Your task to perform on an android device: open chrome and create a bookmark for the current page Image 0: 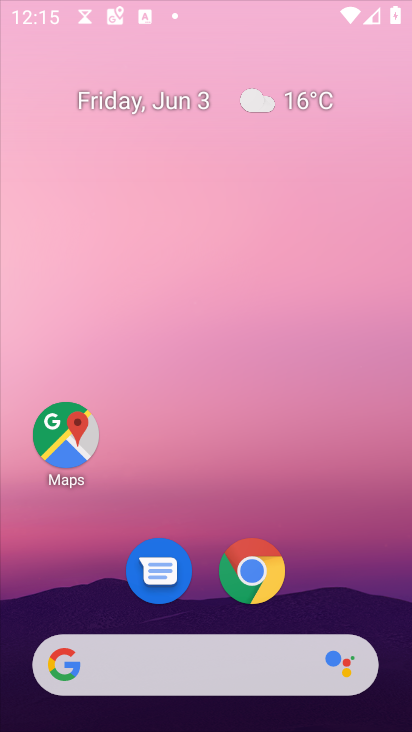
Step 0: drag from (381, 497) to (384, 18)
Your task to perform on an android device: open chrome and create a bookmark for the current page Image 1: 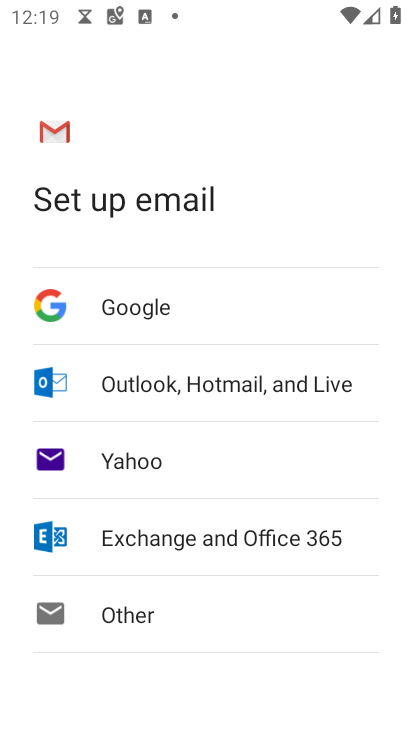
Step 1: press home button
Your task to perform on an android device: open chrome and create a bookmark for the current page Image 2: 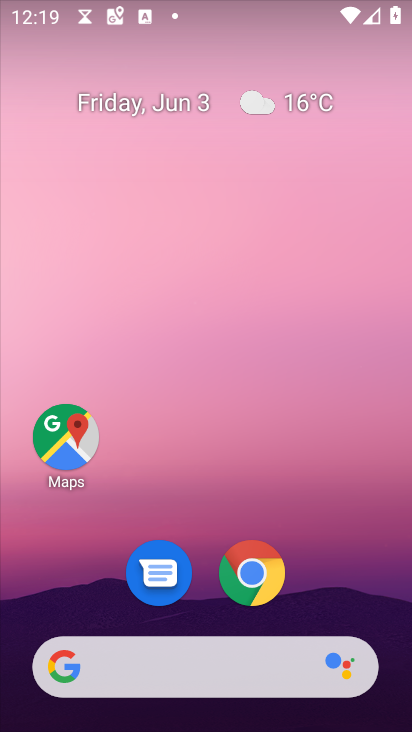
Step 2: drag from (326, 566) to (299, 83)
Your task to perform on an android device: open chrome and create a bookmark for the current page Image 3: 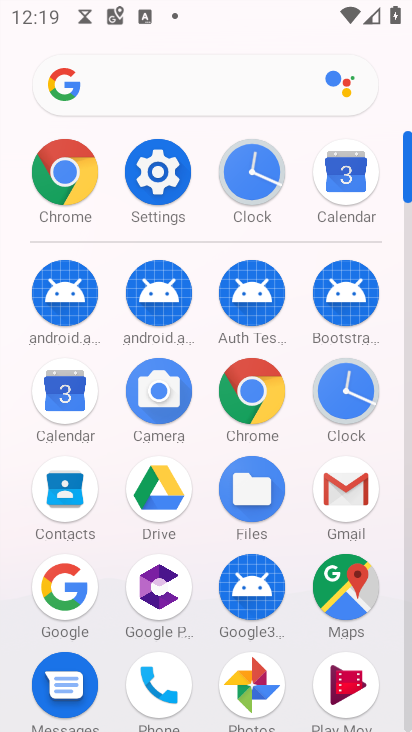
Step 3: click (89, 199)
Your task to perform on an android device: open chrome and create a bookmark for the current page Image 4: 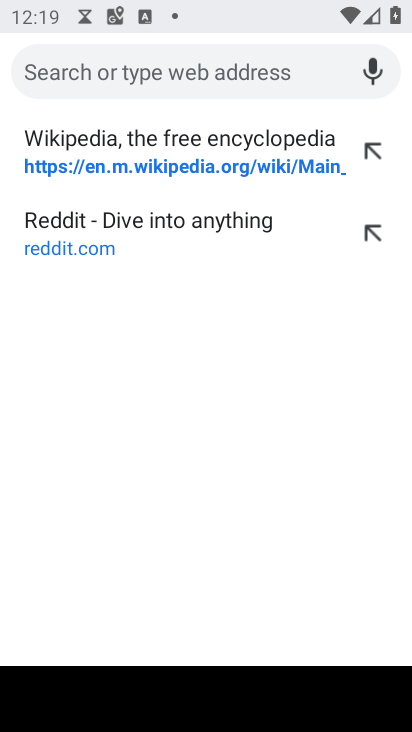
Step 4: task complete